Your task to perform on an android device: toggle priority inbox in the gmail app Image 0: 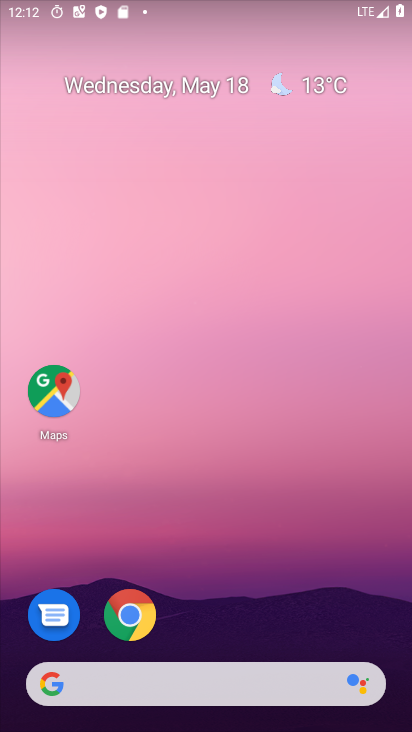
Step 0: drag from (131, 681) to (240, 155)
Your task to perform on an android device: toggle priority inbox in the gmail app Image 1: 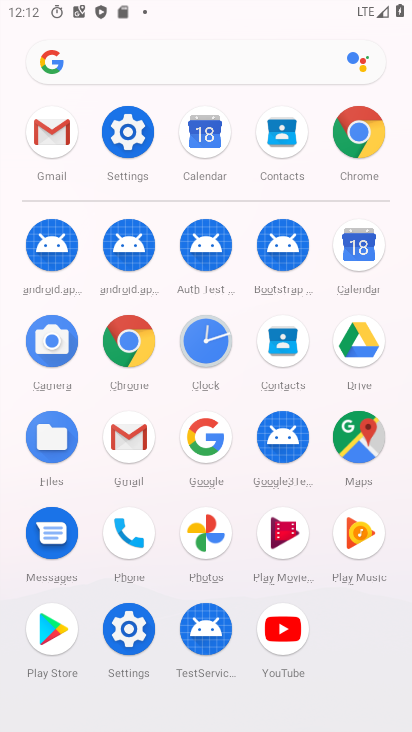
Step 1: click (54, 142)
Your task to perform on an android device: toggle priority inbox in the gmail app Image 2: 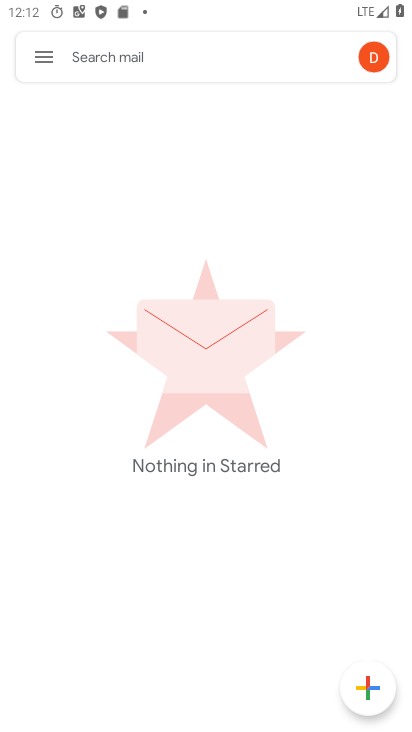
Step 2: click (44, 58)
Your task to perform on an android device: toggle priority inbox in the gmail app Image 3: 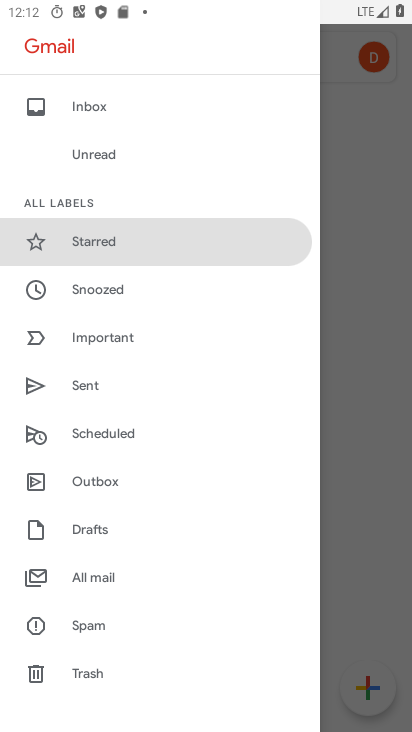
Step 3: drag from (143, 675) to (207, 416)
Your task to perform on an android device: toggle priority inbox in the gmail app Image 4: 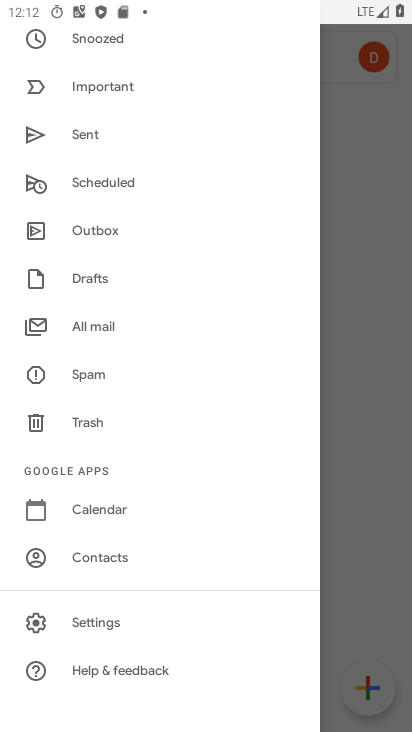
Step 4: click (117, 625)
Your task to perform on an android device: toggle priority inbox in the gmail app Image 5: 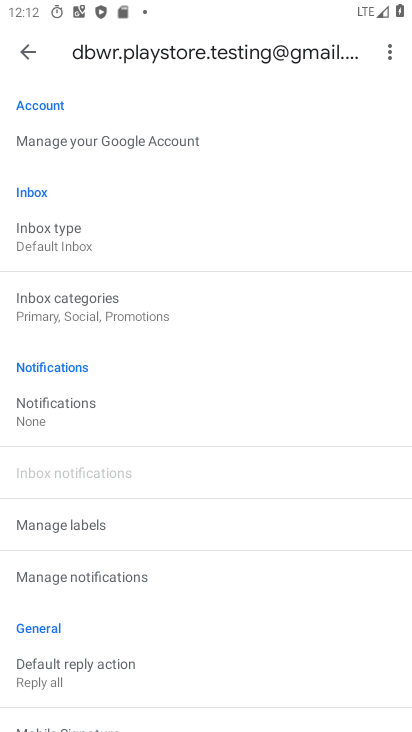
Step 5: click (86, 236)
Your task to perform on an android device: toggle priority inbox in the gmail app Image 6: 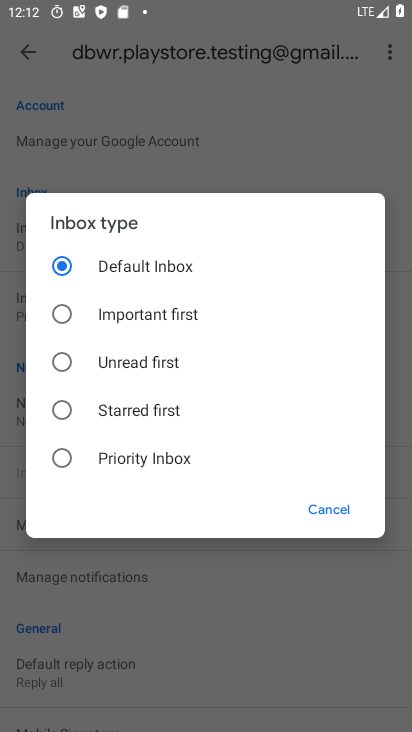
Step 6: click (59, 456)
Your task to perform on an android device: toggle priority inbox in the gmail app Image 7: 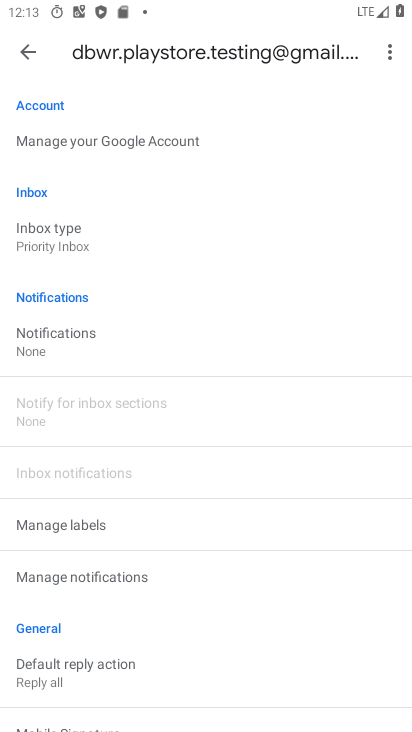
Step 7: task complete